Your task to perform on an android device: delete a single message in the gmail app Image 0: 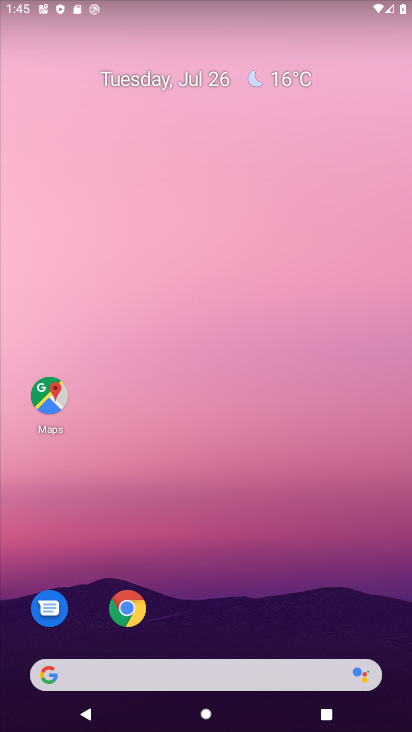
Step 0: drag from (277, 622) to (259, 45)
Your task to perform on an android device: delete a single message in the gmail app Image 1: 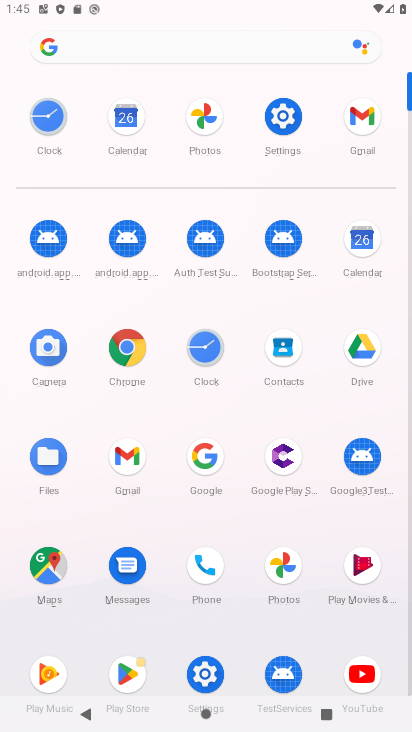
Step 1: click (128, 483)
Your task to perform on an android device: delete a single message in the gmail app Image 2: 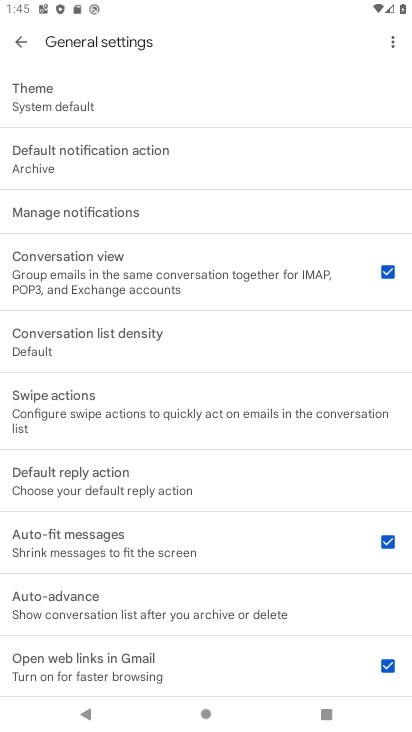
Step 2: task complete